Your task to perform on an android device: check data usage Image 0: 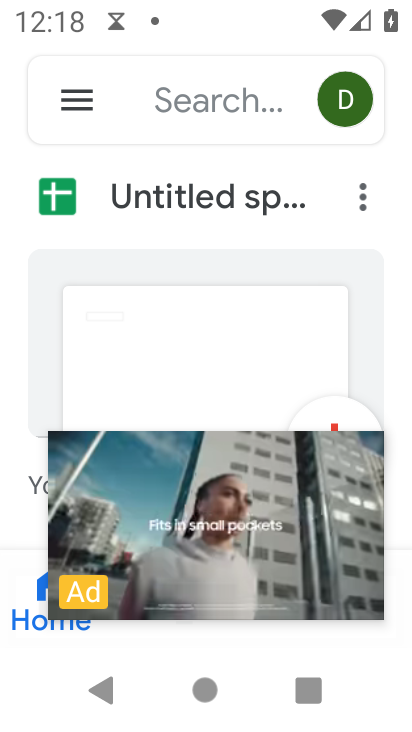
Step 0: press home button
Your task to perform on an android device: check data usage Image 1: 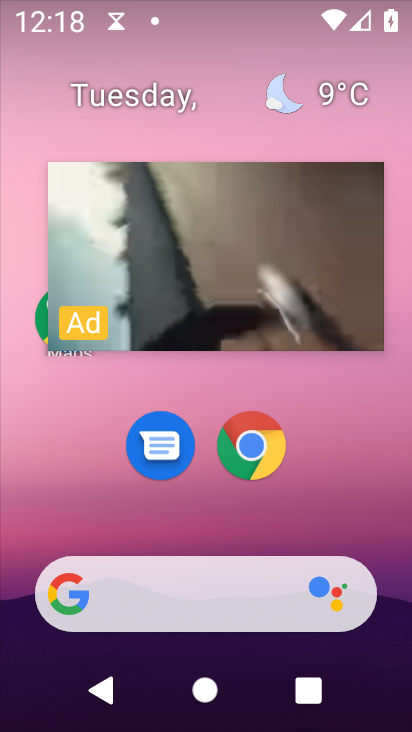
Step 1: drag from (291, 459) to (261, 42)
Your task to perform on an android device: check data usage Image 2: 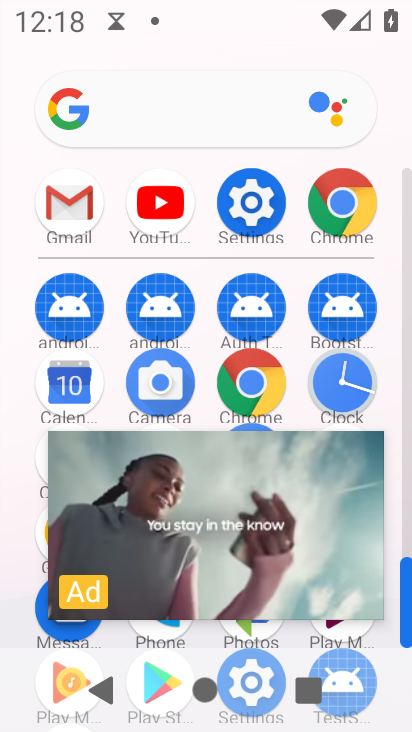
Step 2: click (370, 445)
Your task to perform on an android device: check data usage Image 3: 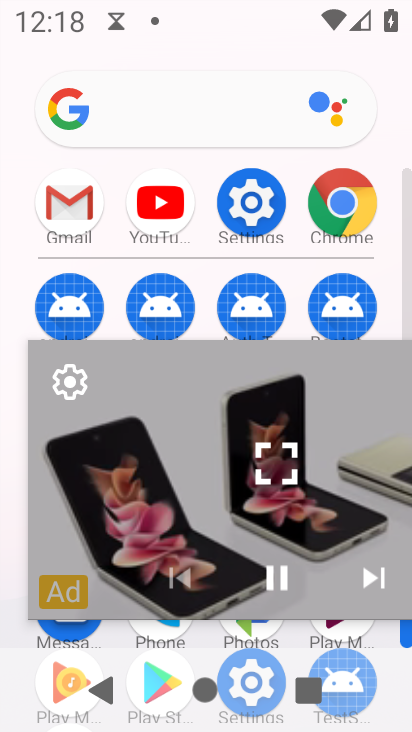
Step 3: click (277, 466)
Your task to perform on an android device: check data usage Image 4: 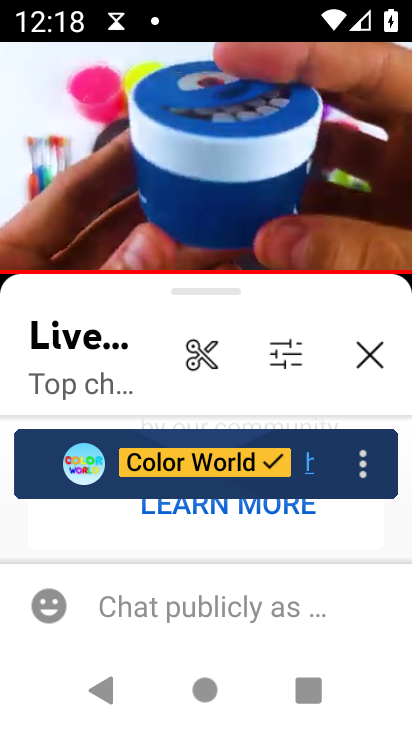
Step 4: click (340, 151)
Your task to perform on an android device: check data usage Image 5: 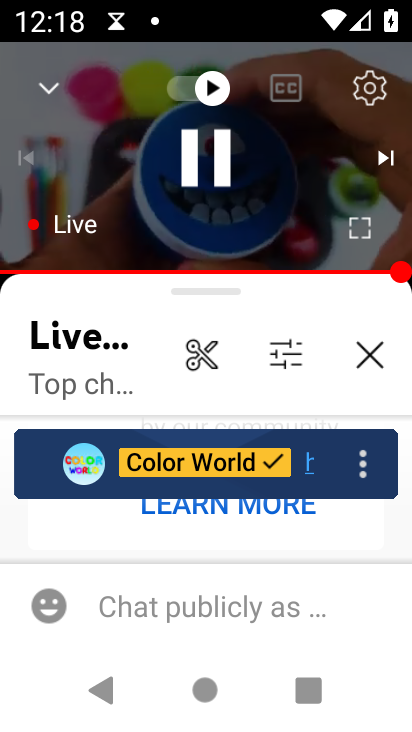
Step 5: click (200, 160)
Your task to perform on an android device: check data usage Image 6: 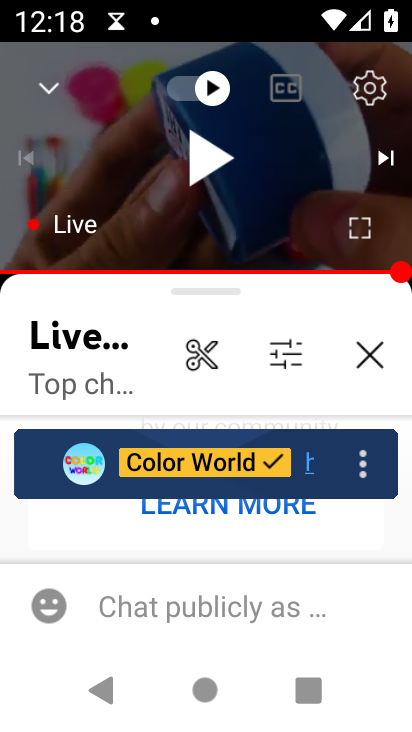
Step 6: press home button
Your task to perform on an android device: check data usage Image 7: 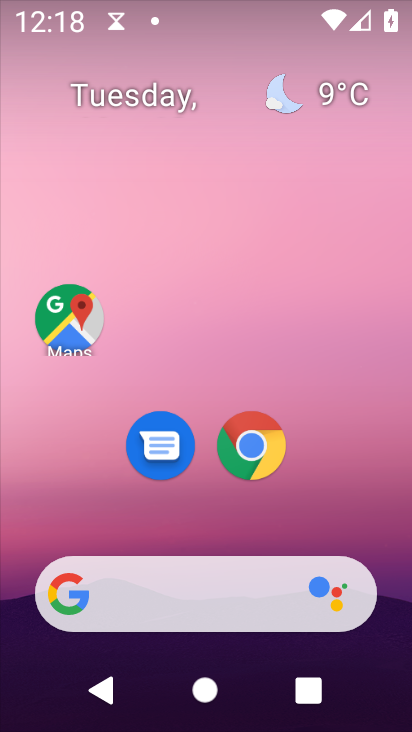
Step 7: drag from (220, 585) to (354, 35)
Your task to perform on an android device: check data usage Image 8: 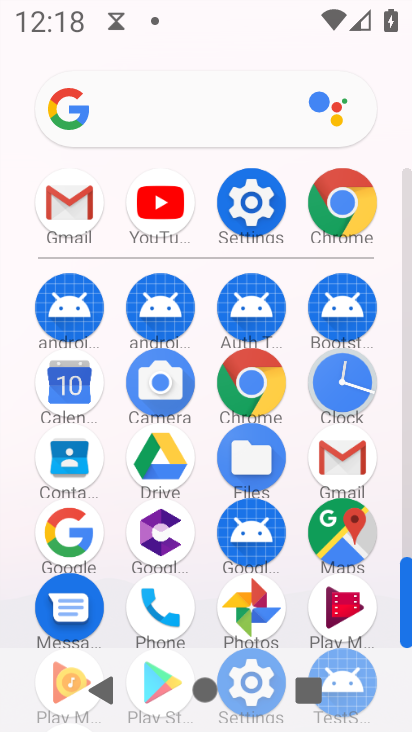
Step 8: click (241, 190)
Your task to perform on an android device: check data usage Image 9: 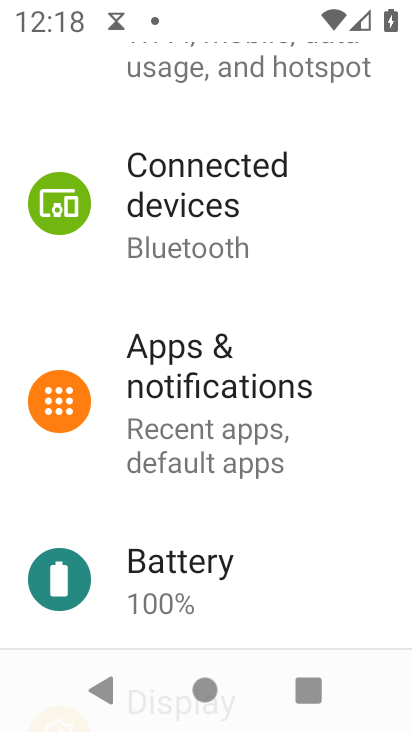
Step 9: drag from (215, 168) to (211, 604)
Your task to perform on an android device: check data usage Image 10: 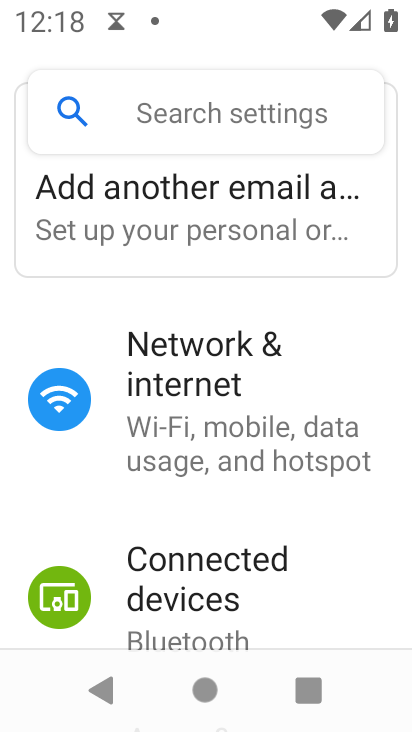
Step 10: click (205, 430)
Your task to perform on an android device: check data usage Image 11: 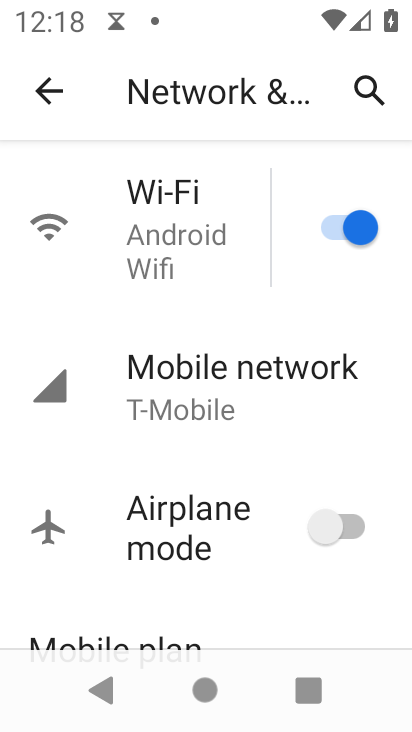
Step 11: drag from (223, 589) to (218, 411)
Your task to perform on an android device: check data usage Image 12: 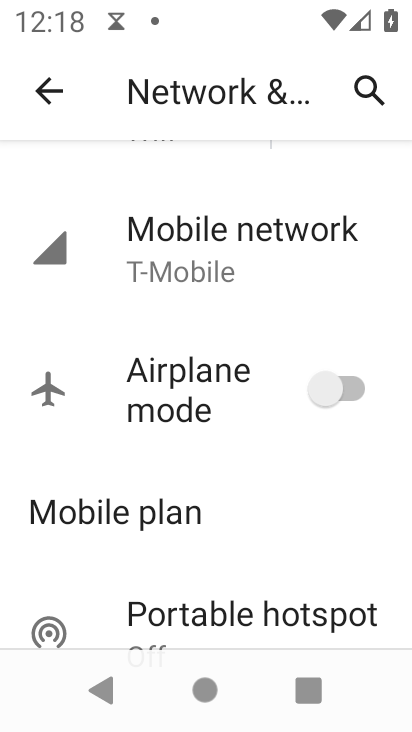
Step 12: click (222, 281)
Your task to perform on an android device: check data usage Image 13: 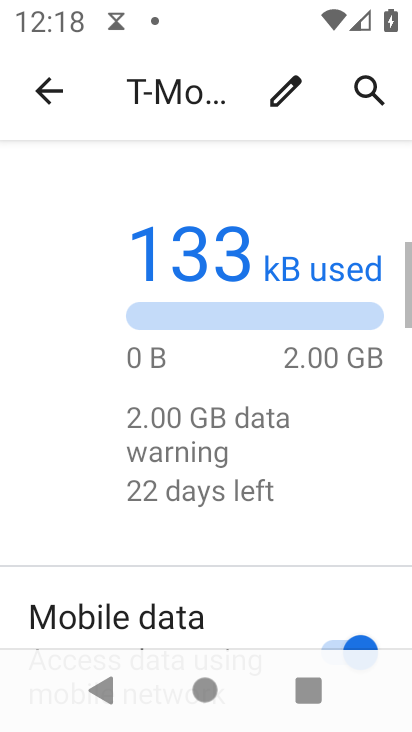
Step 13: task complete